Your task to perform on an android device: change keyboard looks Image 0: 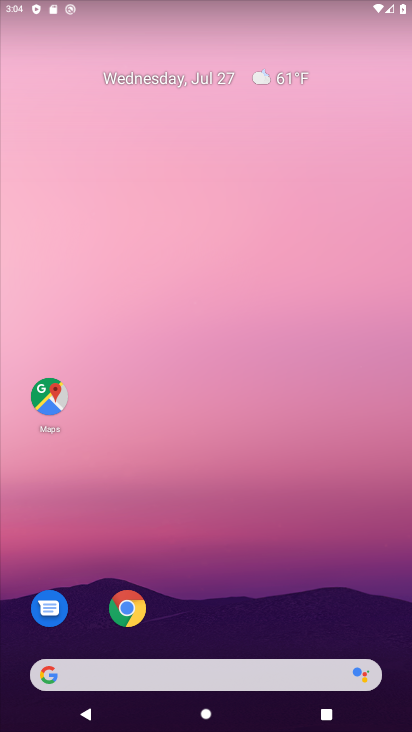
Step 0: drag from (242, 614) to (244, 4)
Your task to perform on an android device: change keyboard looks Image 1: 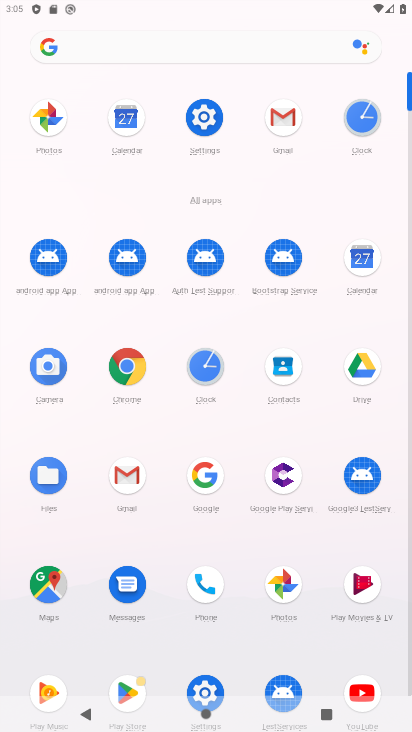
Step 1: click (205, 109)
Your task to perform on an android device: change keyboard looks Image 2: 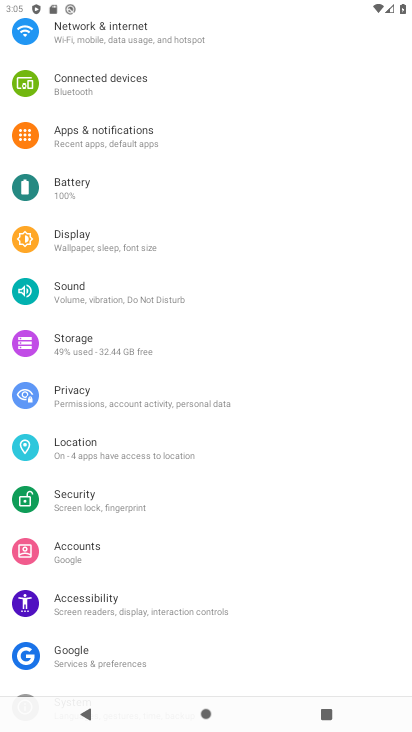
Step 2: drag from (102, 631) to (102, 193)
Your task to perform on an android device: change keyboard looks Image 3: 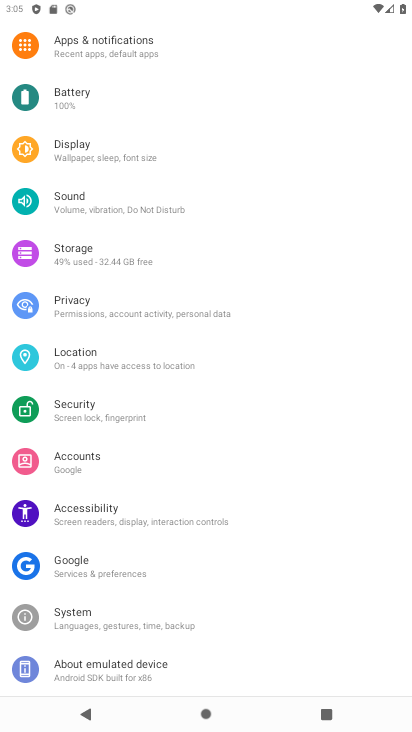
Step 3: click (126, 622)
Your task to perform on an android device: change keyboard looks Image 4: 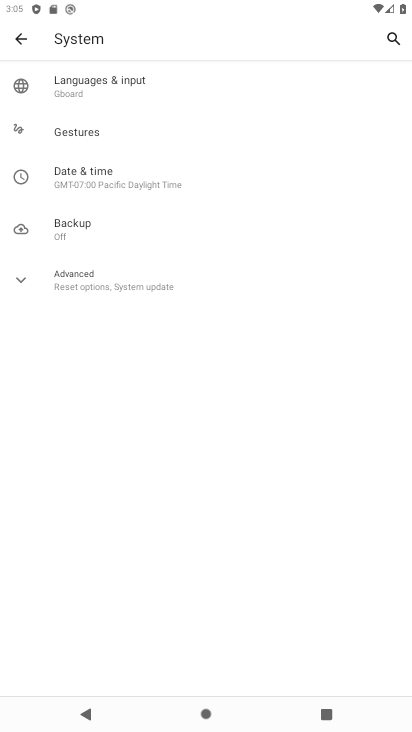
Step 4: click (94, 69)
Your task to perform on an android device: change keyboard looks Image 5: 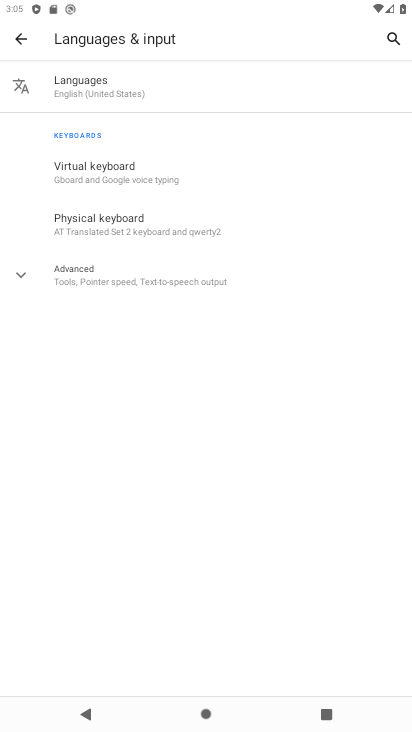
Step 5: click (66, 171)
Your task to perform on an android device: change keyboard looks Image 6: 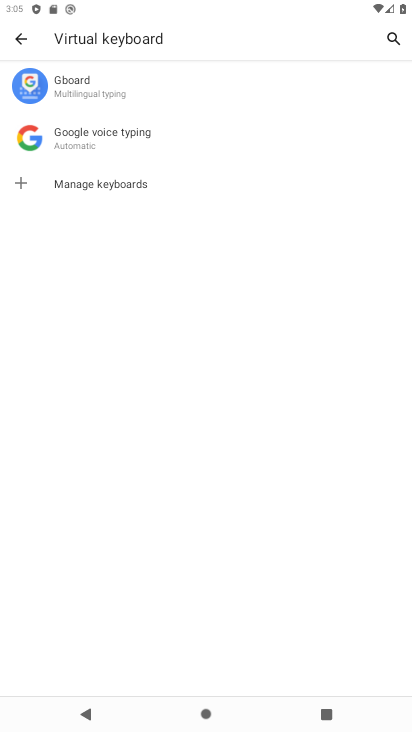
Step 6: click (144, 76)
Your task to perform on an android device: change keyboard looks Image 7: 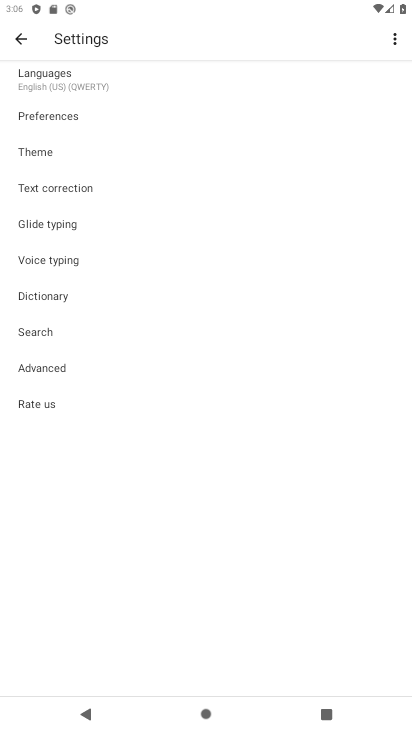
Step 7: click (82, 145)
Your task to perform on an android device: change keyboard looks Image 8: 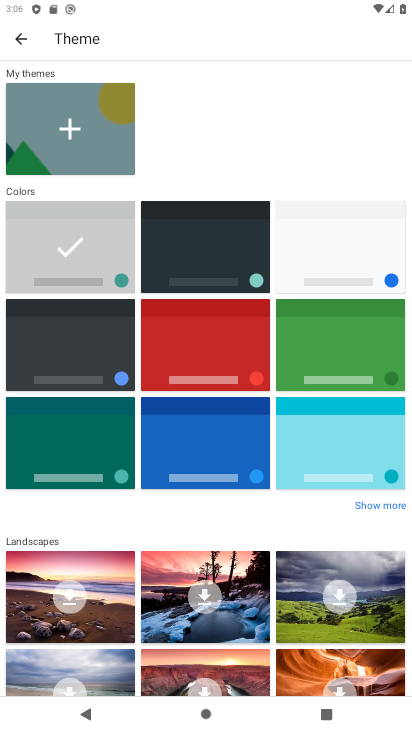
Step 8: click (258, 296)
Your task to perform on an android device: change keyboard looks Image 9: 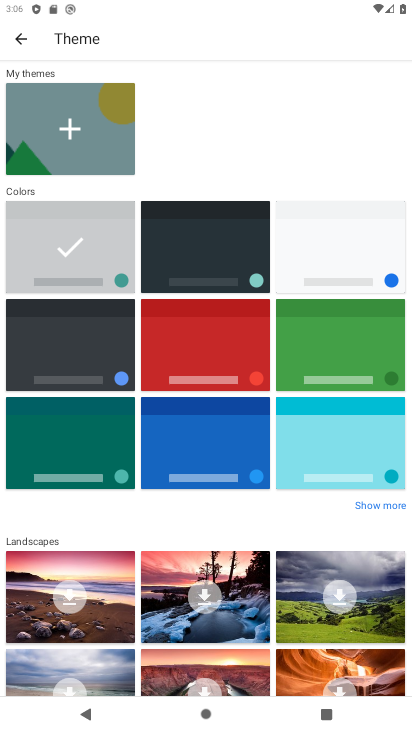
Step 9: click (263, 329)
Your task to perform on an android device: change keyboard looks Image 10: 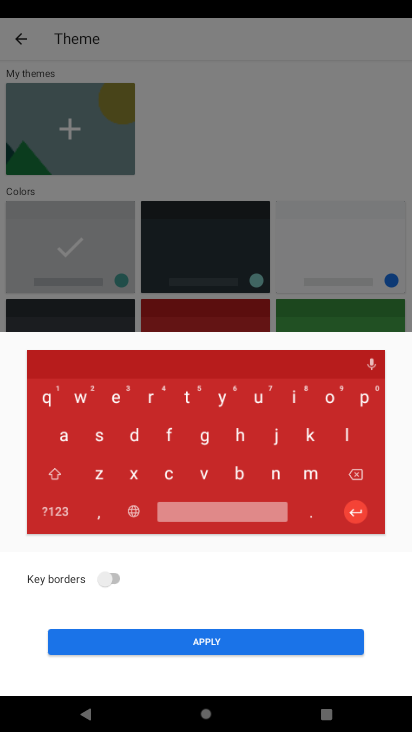
Step 10: click (293, 644)
Your task to perform on an android device: change keyboard looks Image 11: 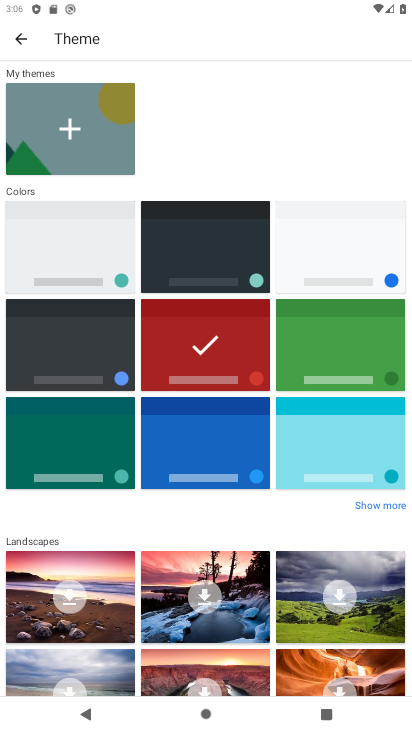
Step 11: task complete